Your task to perform on an android device: Go to accessibility settings Image 0: 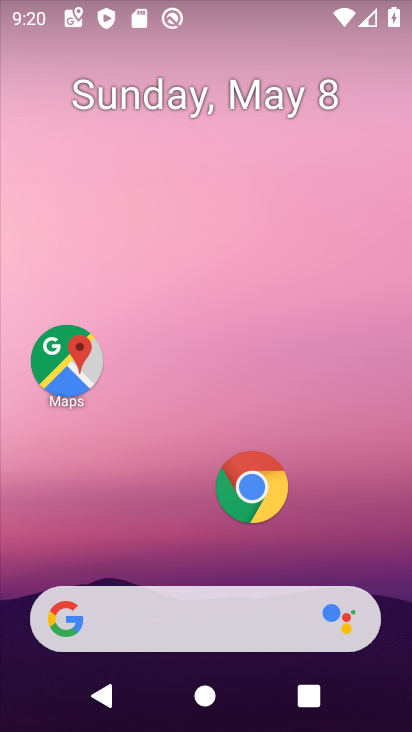
Step 0: drag from (171, 429) to (196, 22)
Your task to perform on an android device: Go to accessibility settings Image 1: 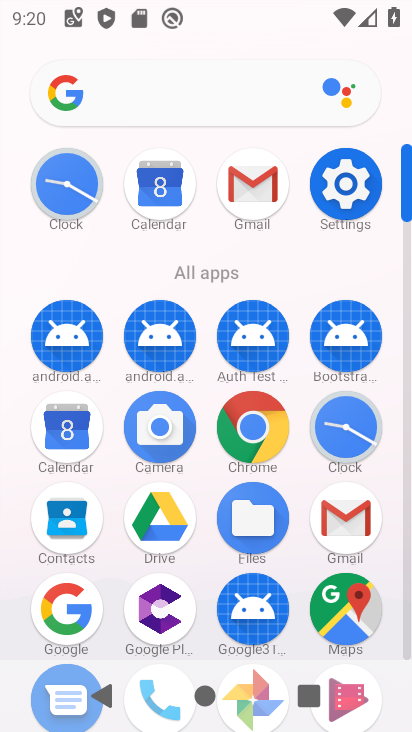
Step 1: click (344, 181)
Your task to perform on an android device: Go to accessibility settings Image 2: 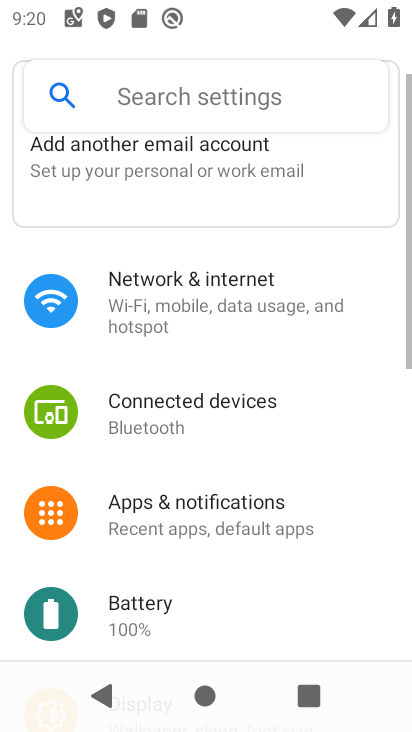
Step 2: drag from (270, 520) to (269, 168)
Your task to perform on an android device: Go to accessibility settings Image 3: 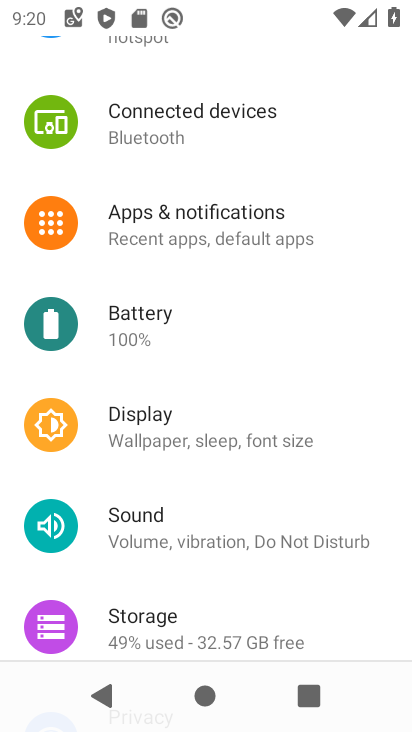
Step 3: drag from (214, 548) to (233, 184)
Your task to perform on an android device: Go to accessibility settings Image 4: 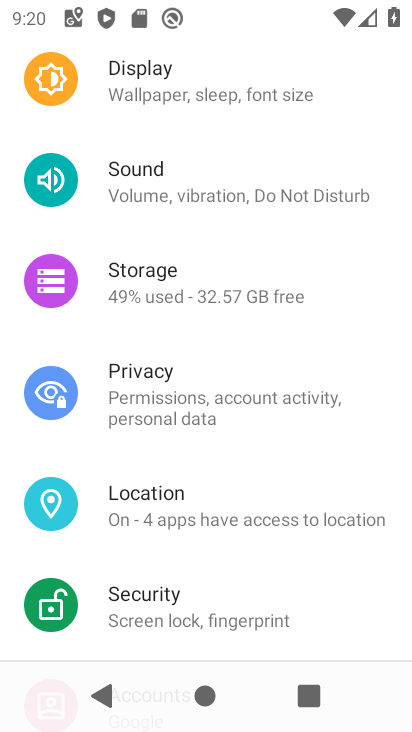
Step 4: drag from (222, 541) to (278, 172)
Your task to perform on an android device: Go to accessibility settings Image 5: 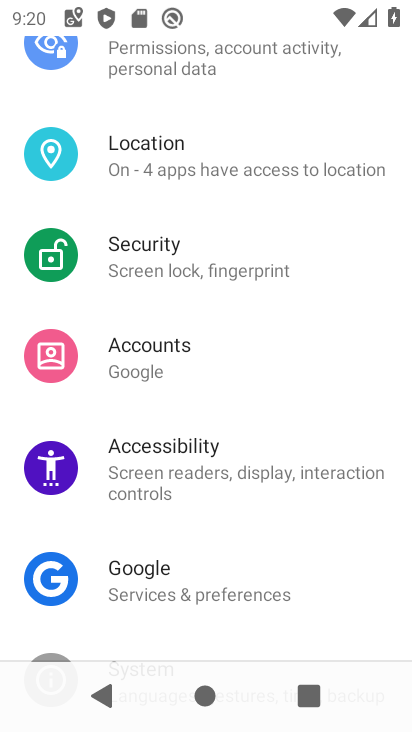
Step 5: click (216, 450)
Your task to perform on an android device: Go to accessibility settings Image 6: 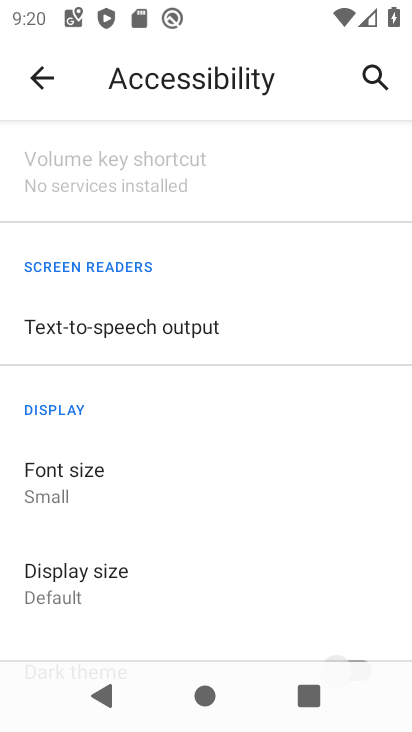
Step 6: task complete